Your task to perform on an android device: Open Wikipedia Image 0: 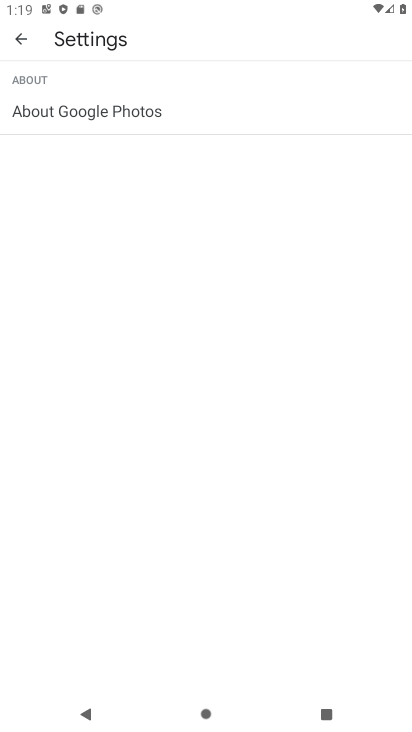
Step 0: press home button
Your task to perform on an android device: Open Wikipedia Image 1: 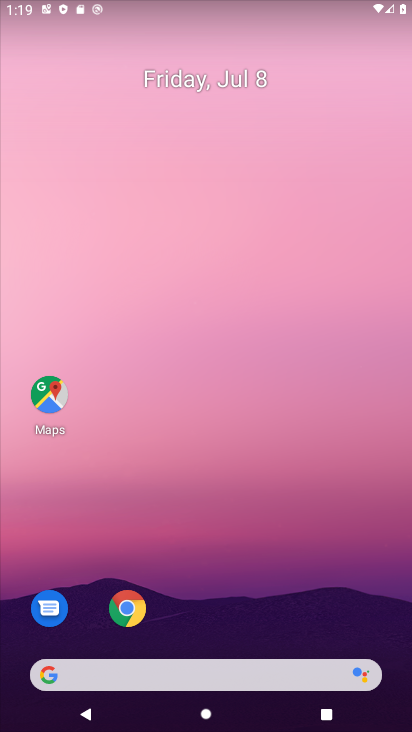
Step 1: click (125, 605)
Your task to perform on an android device: Open Wikipedia Image 2: 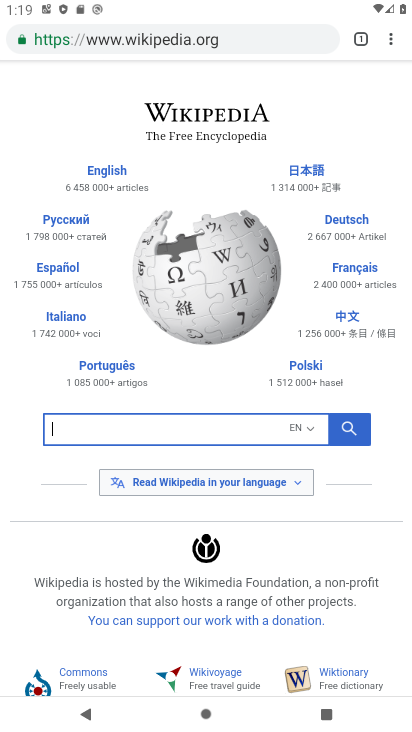
Step 2: task complete